Your task to perform on an android device: star an email in the gmail app Image 0: 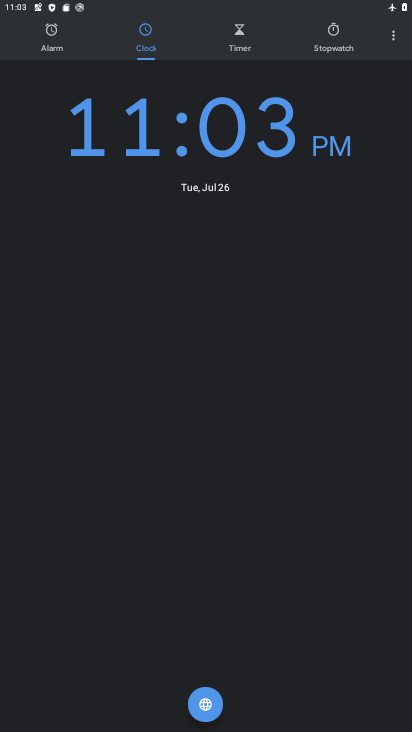
Step 0: press home button
Your task to perform on an android device: star an email in the gmail app Image 1: 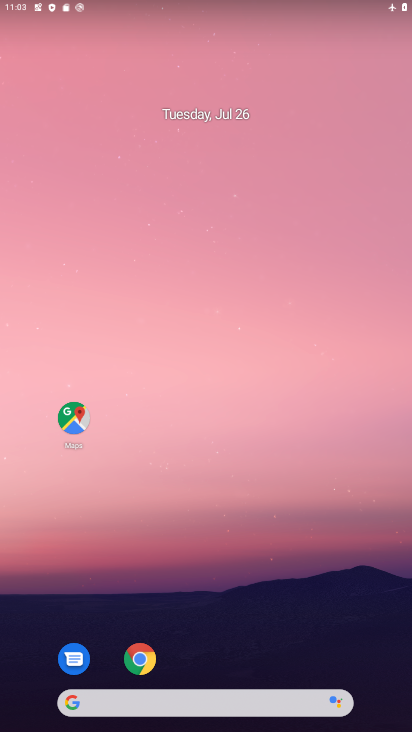
Step 1: drag from (180, 709) to (309, 36)
Your task to perform on an android device: star an email in the gmail app Image 2: 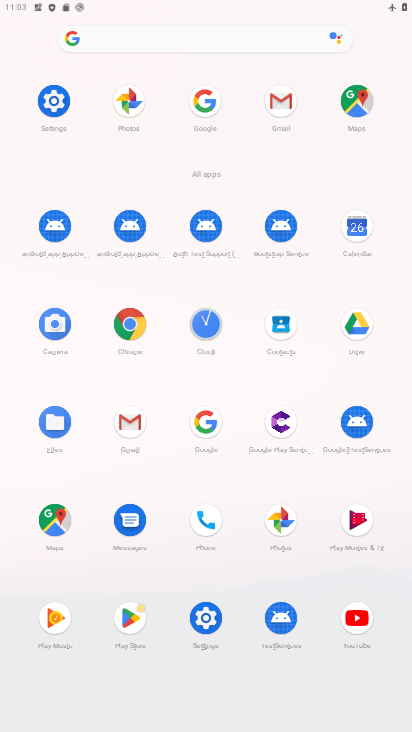
Step 2: click (281, 101)
Your task to perform on an android device: star an email in the gmail app Image 3: 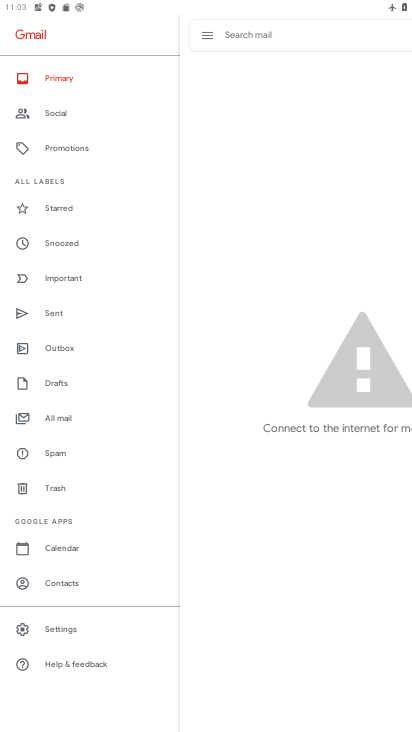
Step 3: click (64, 112)
Your task to perform on an android device: star an email in the gmail app Image 4: 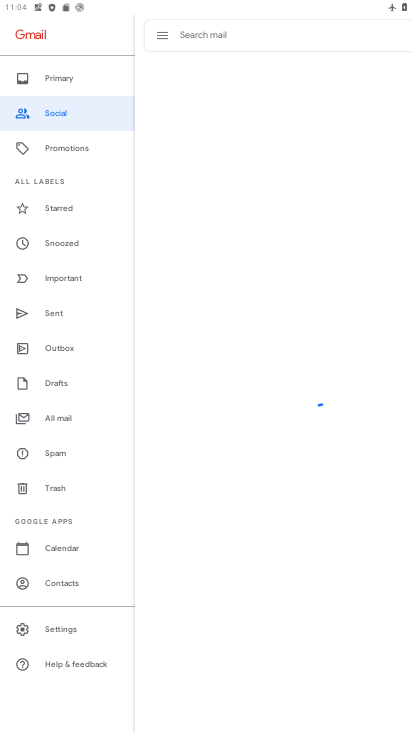
Step 4: click (66, 148)
Your task to perform on an android device: star an email in the gmail app Image 5: 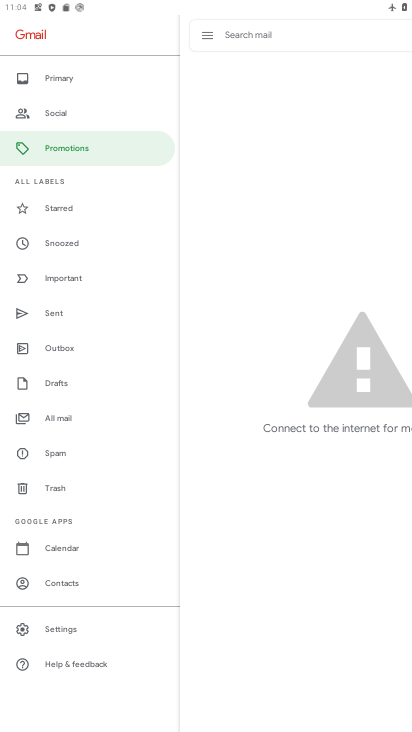
Step 5: click (56, 213)
Your task to perform on an android device: star an email in the gmail app Image 6: 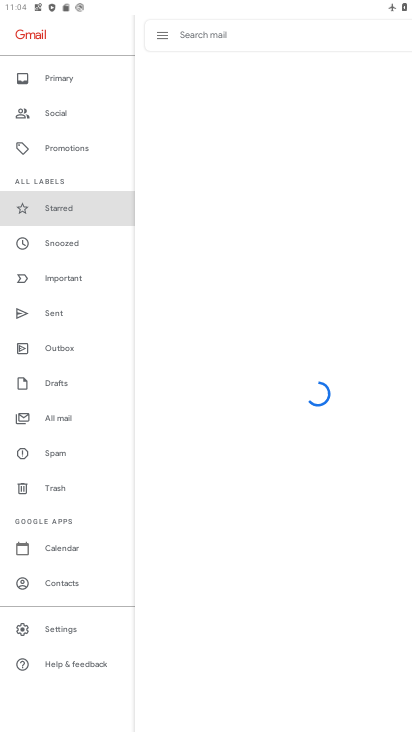
Step 6: click (56, 239)
Your task to perform on an android device: star an email in the gmail app Image 7: 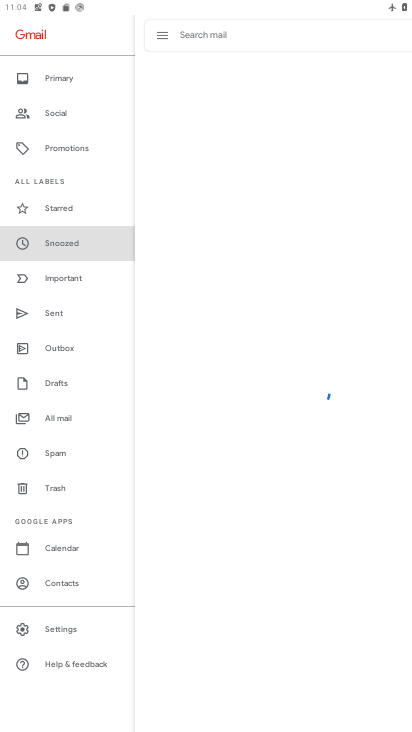
Step 7: click (69, 277)
Your task to perform on an android device: star an email in the gmail app Image 8: 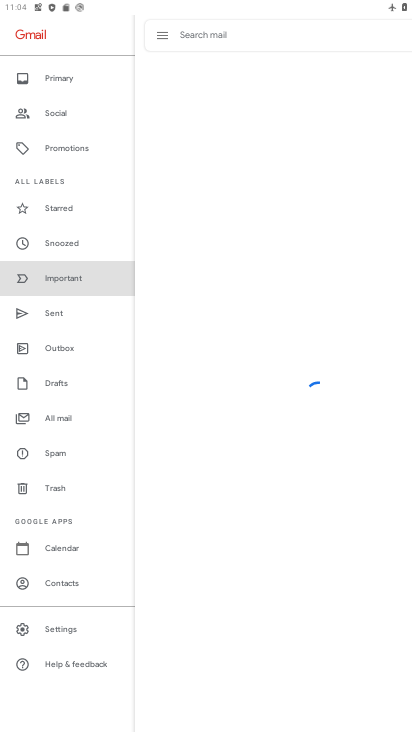
Step 8: click (54, 311)
Your task to perform on an android device: star an email in the gmail app Image 9: 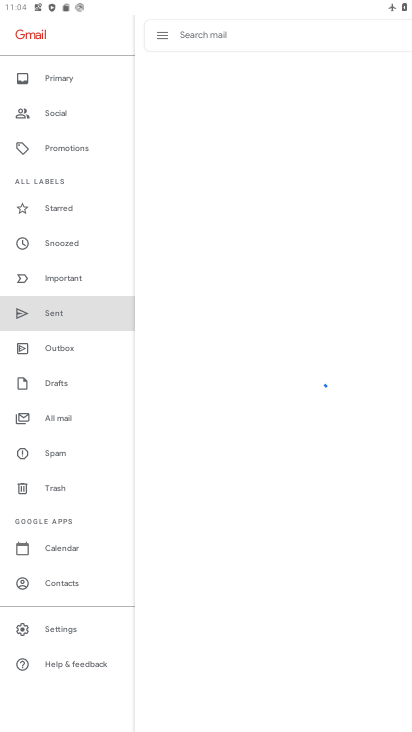
Step 9: click (49, 348)
Your task to perform on an android device: star an email in the gmail app Image 10: 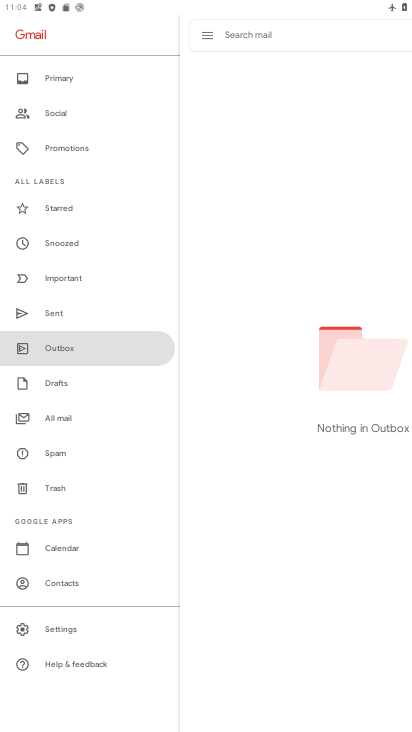
Step 10: task complete